Your task to perform on an android device: open app "ColorNote Notepad Notes" (install if not already installed) Image 0: 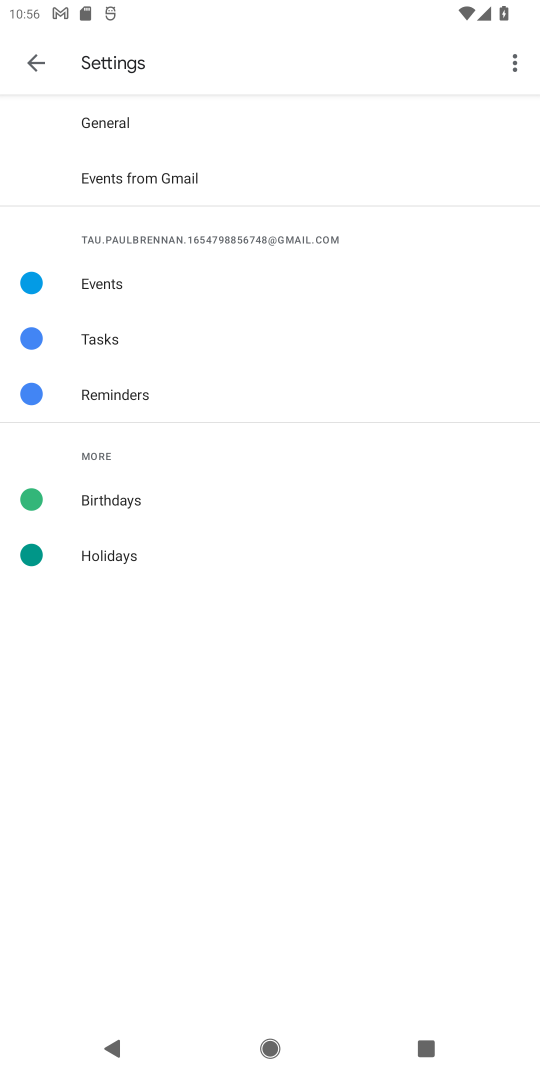
Step 0: press home button
Your task to perform on an android device: open app "ColorNote Notepad Notes" (install if not already installed) Image 1: 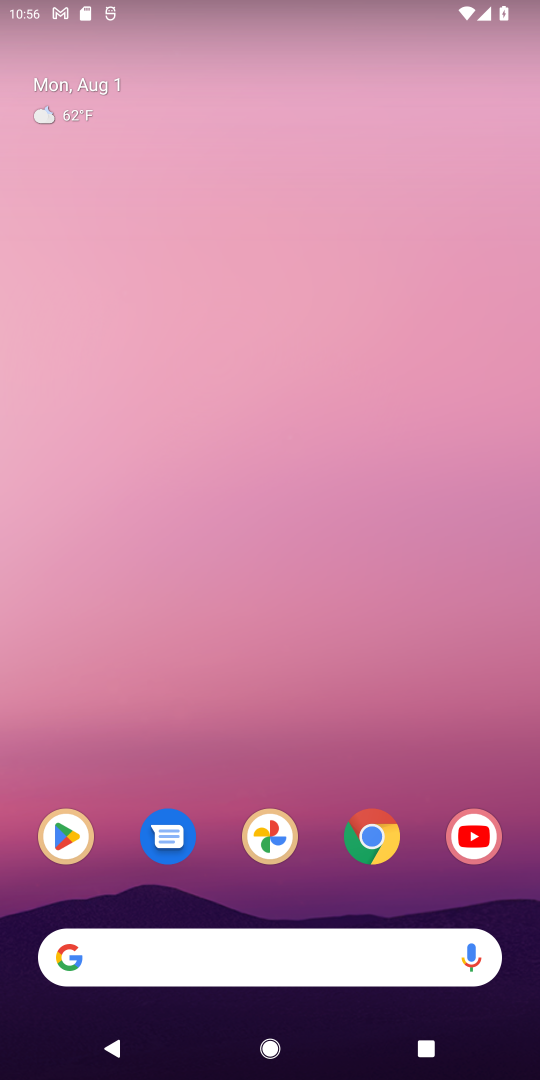
Step 1: click (66, 855)
Your task to perform on an android device: open app "ColorNote Notepad Notes" (install if not already installed) Image 2: 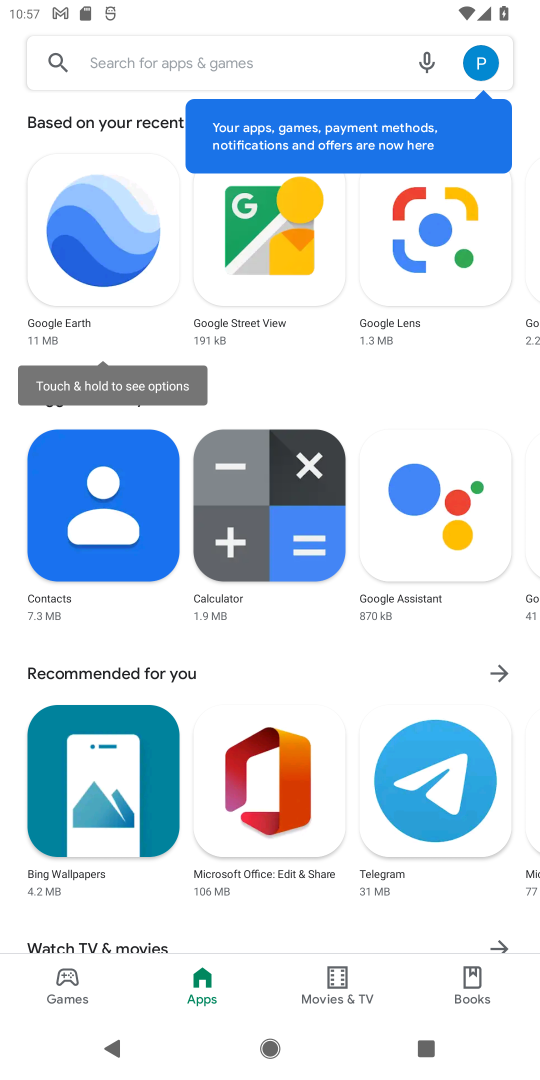
Step 2: click (212, 61)
Your task to perform on an android device: open app "ColorNote Notepad Notes" (install if not already installed) Image 3: 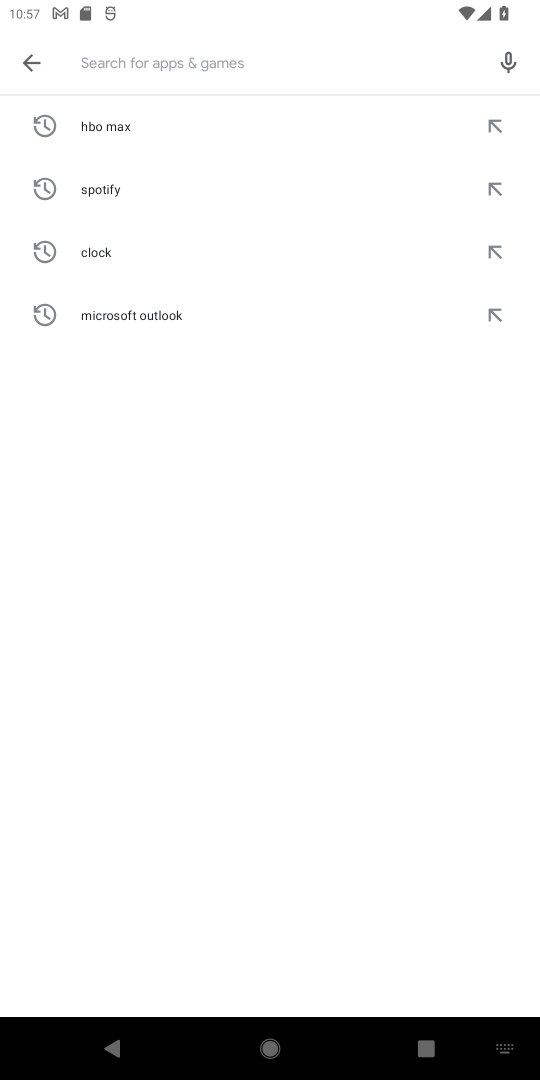
Step 3: type "colornote notepad notes"
Your task to perform on an android device: open app "ColorNote Notepad Notes" (install if not already installed) Image 4: 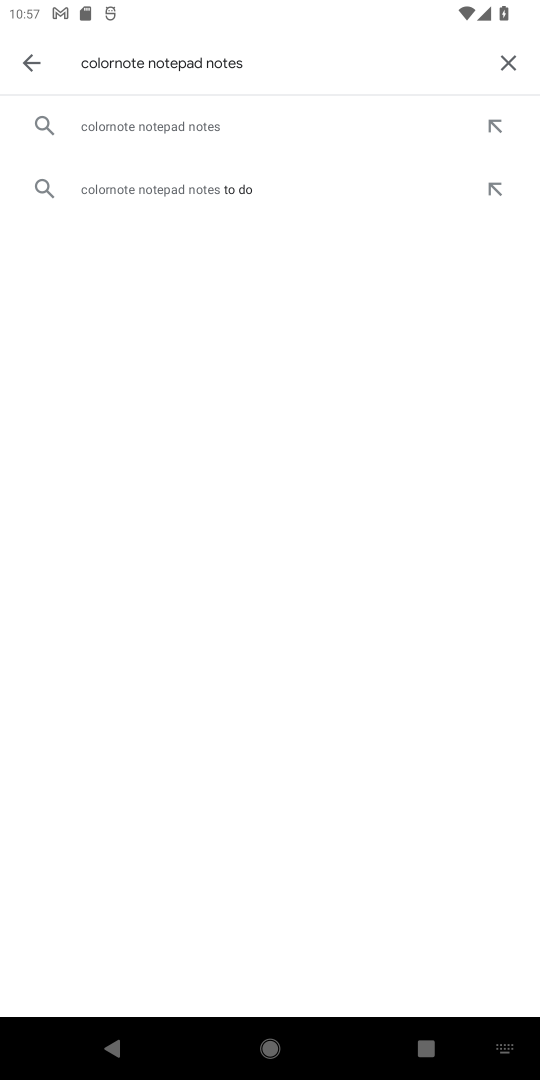
Step 4: click (146, 120)
Your task to perform on an android device: open app "ColorNote Notepad Notes" (install if not already installed) Image 5: 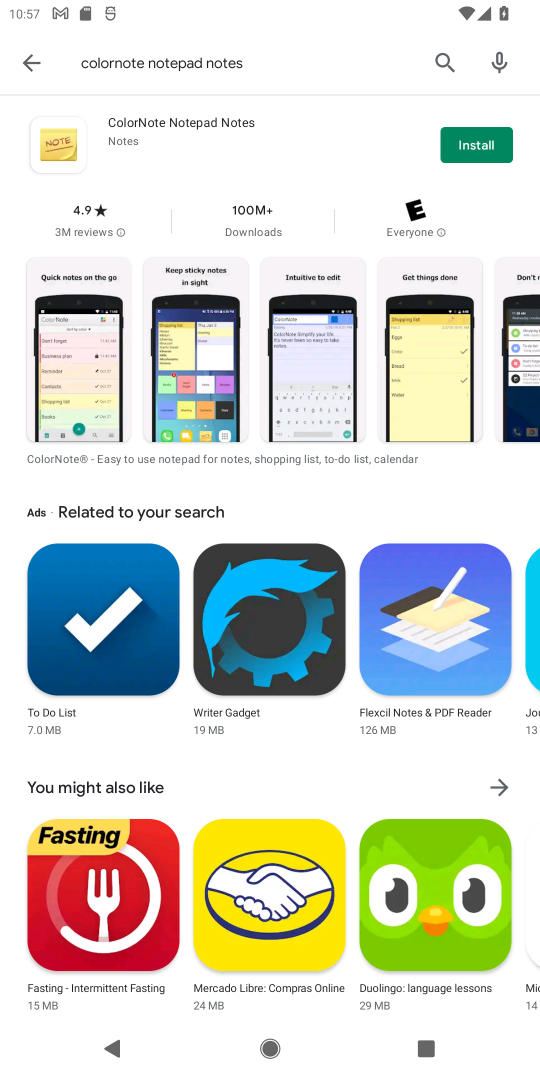
Step 5: click (478, 149)
Your task to perform on an android device: open app "ColorNote Notepad Notes" (install if not already installed) Image 6: 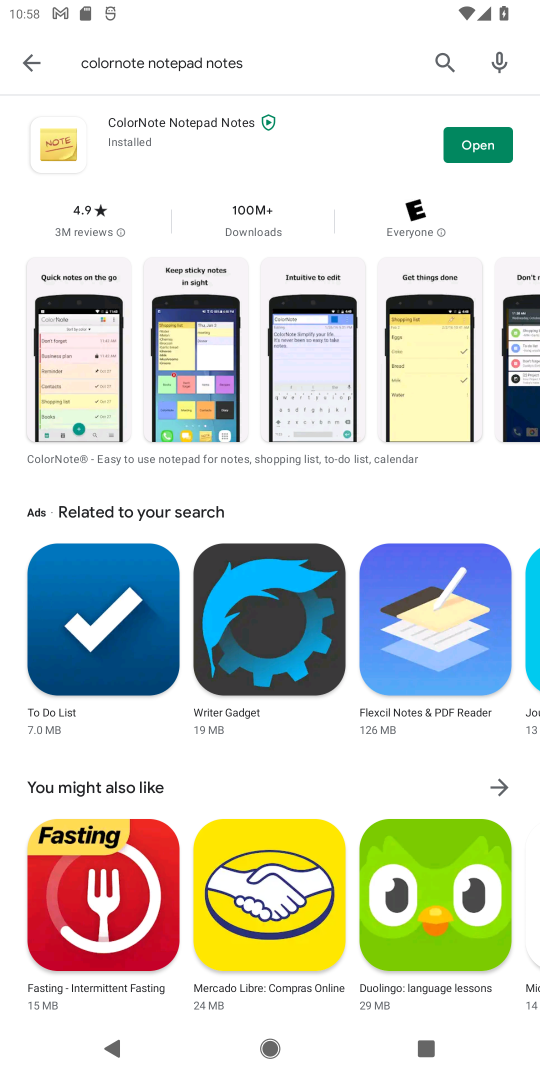
Step 6: click (490, 156)
Your task to perform on an android device: open app "ColorNote Notepad Notes" (install if not already installed) Image 7: 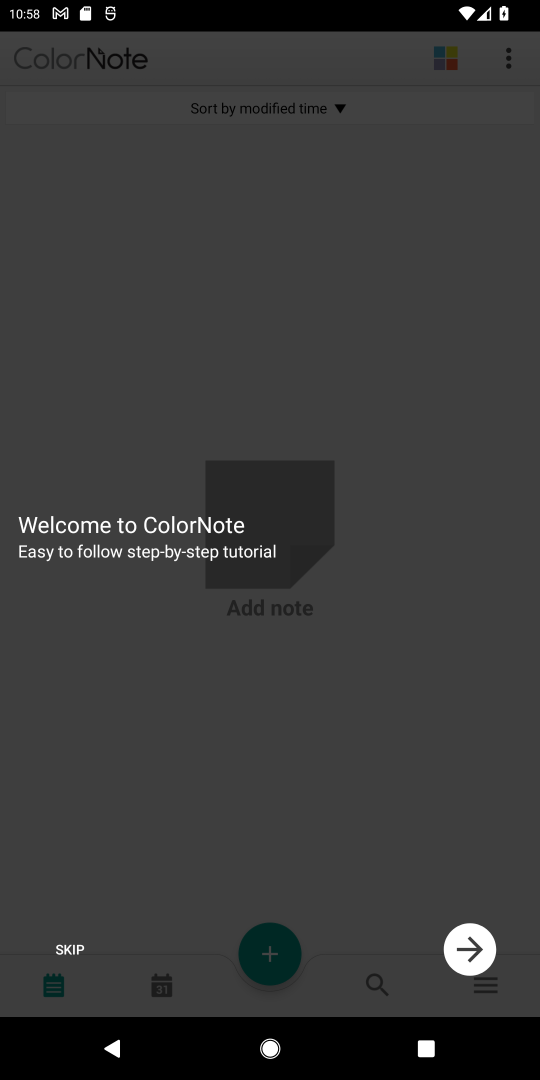
Step 7: click (469, 503)
Your task to perform on an android device: open app "ColorNote Notepad Notes" (install if not already installed) Image 8: 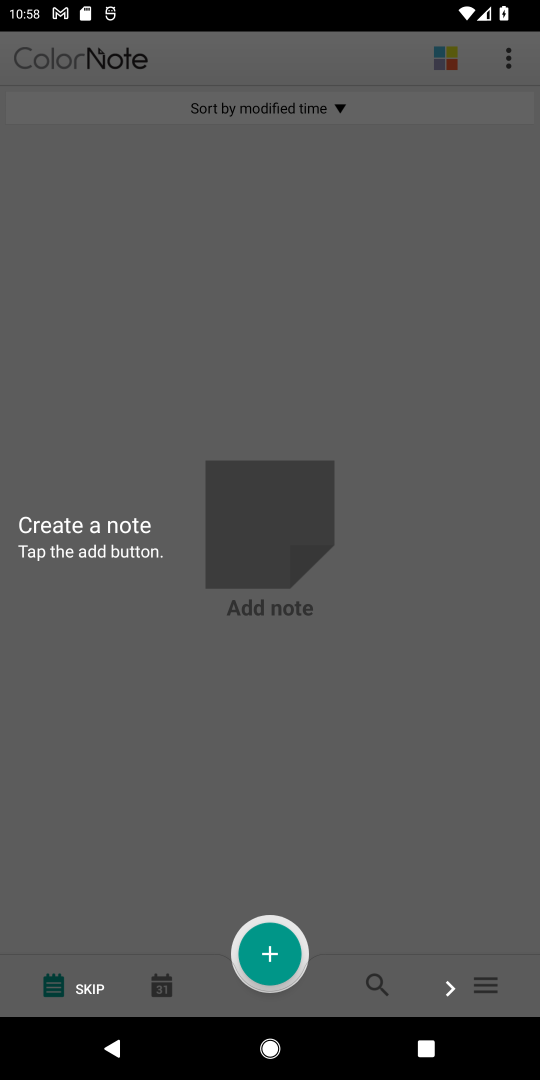
Step 8: task complete